Your task to perform on an android device: Open the calendar and show me this week's events? Image 0: 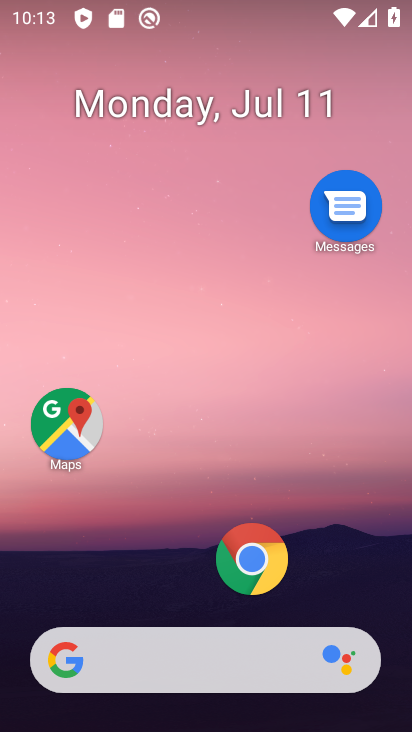
Step 0: drag from (362, 564) to (365, 189)
Your task to perform on an android device: Open the calendar and show me this week's events? Image 1: 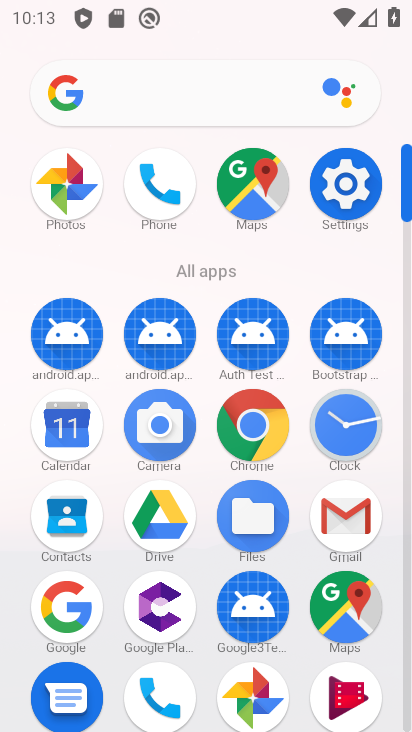
Step 1: click (70, 432)
Your task to perform on an android device: Open the calendar and show me this week's events? Image 2: 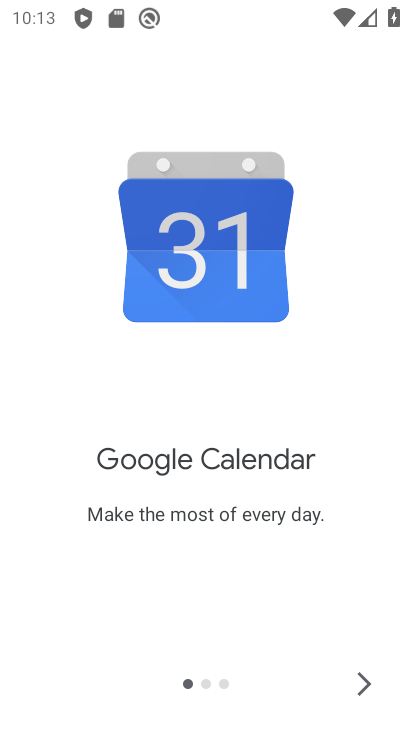
Step 2: click (355, 676)
Your task to perform on an android device: Open the calendar and show me this week's events? Image 3: 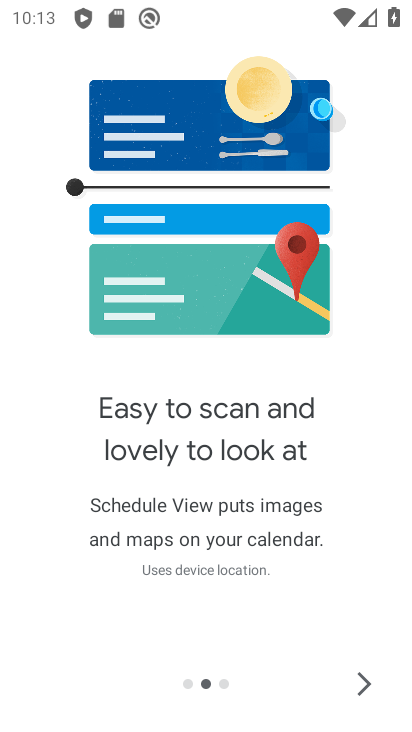
Step 3: click (355, 676)
Your task to perform on an android device: Open the calendar and show me this week's events? Image 4: 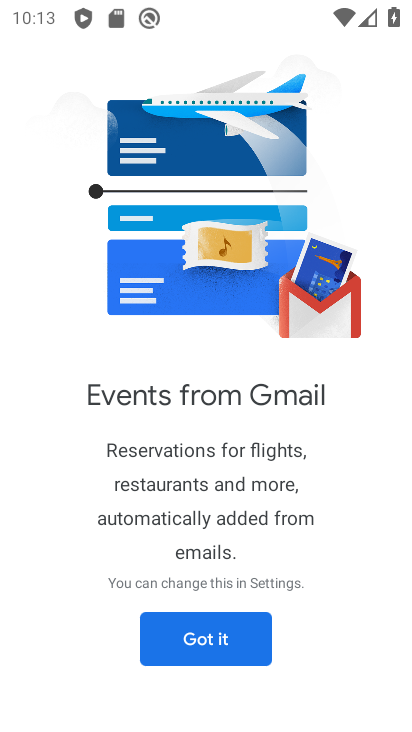
Step 4: click (247, 646)
Your task to perform on an android device: Open the calendar and show me this week's events? Image 5: 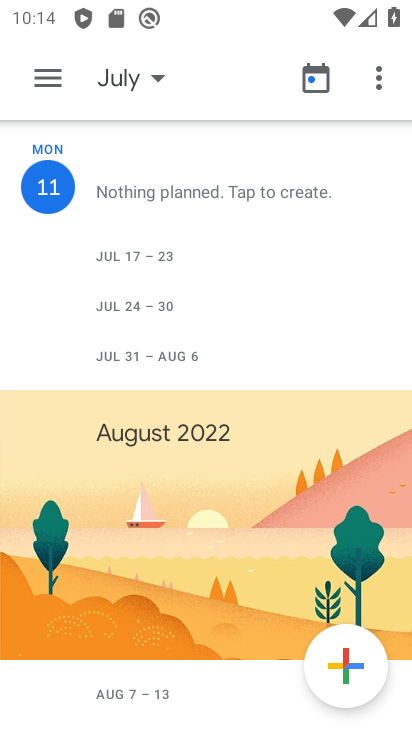
Step 5: task complete